Your task to perform on an android device: See recent photos Image 0: 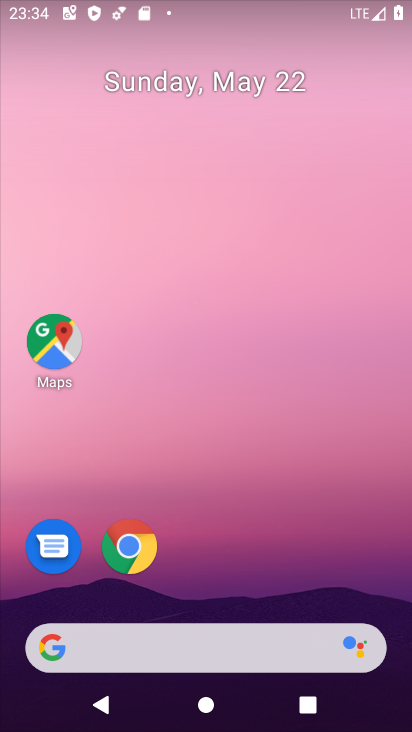
Step 0: drag from (164, 576) to (245, 171)
Your task to perform on an android device: See recent photos Image 1: 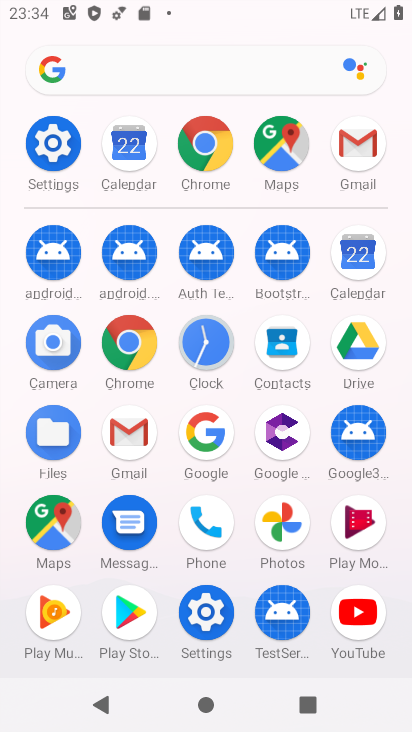
Step 1: click (276, 526)
Your task to perform on an android device: See recent photos Image 2: 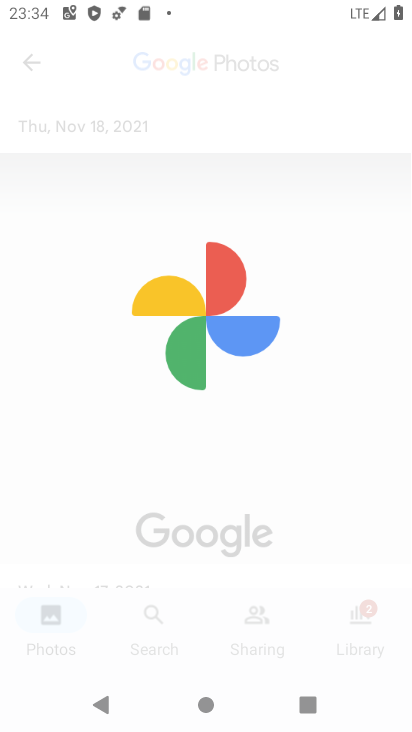
Step 2: drag from (209, 578) to (214, 292)
Your task to perform on an android device: See recent photos Image 3: 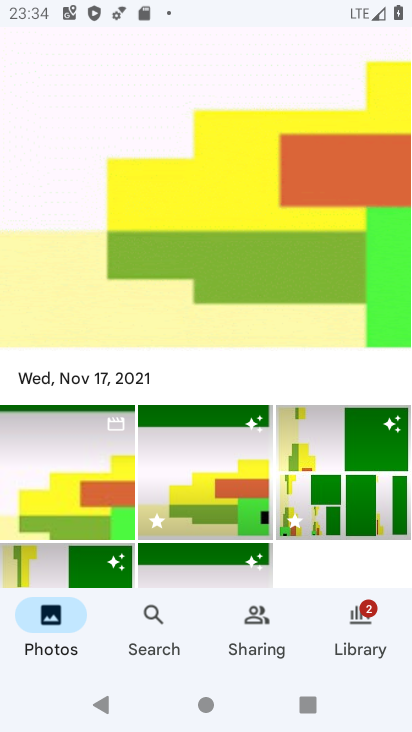
Step 3: drag from (211, 550) to (237, 289)
Your task to perform on an android device: See recent photos Image 4: 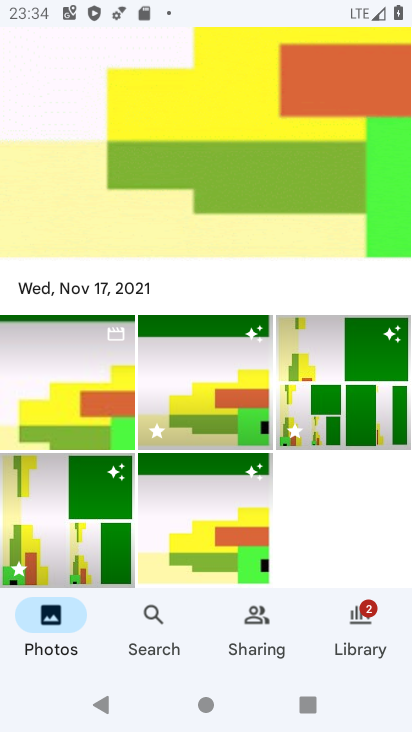
Step 4: drag from (163, 535) to (261, 145)
Your task to perform on an android device: See recent photos Image 5: 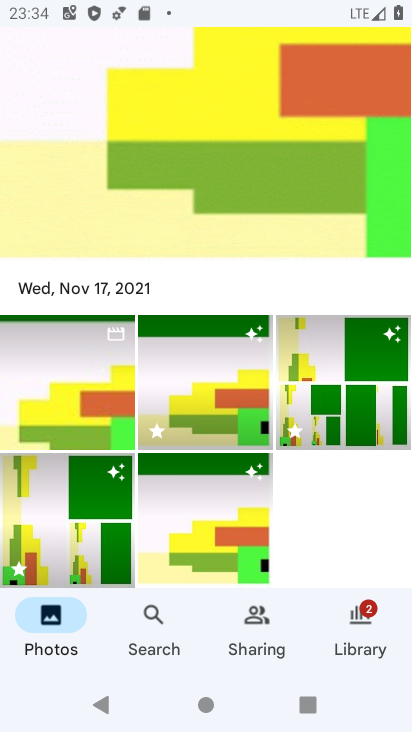
Step 5: drag from (286, 530) to (295, 215)
Your task to perform on an android device: See recent photos Image 6: 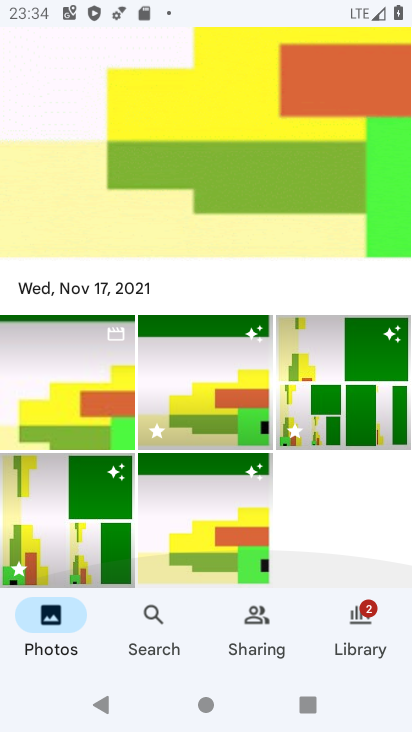
Step 6: drag from (289, 180) to (276, 614)
Your task to perform on an android device: See recent photos Image 7: 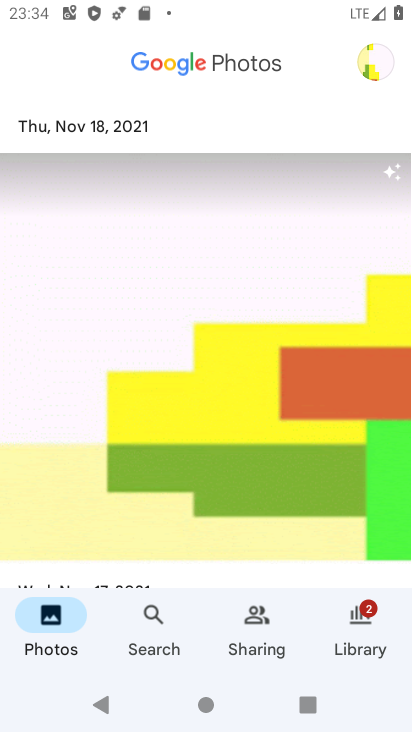
Step 7: click (245, 627)
Your task to perform on an android device: See recent photos Image 8: 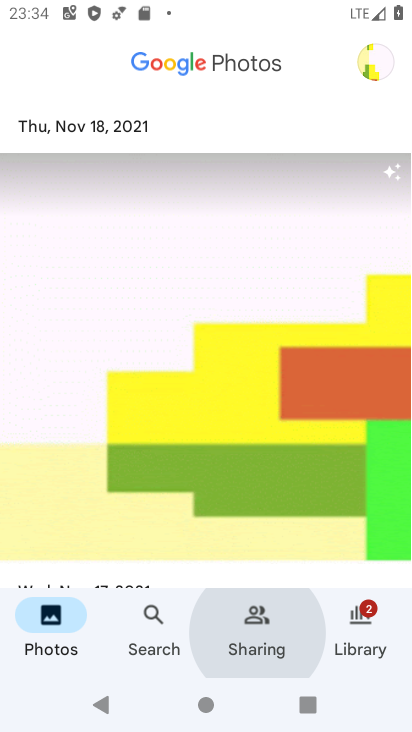
Step 8: click (395, 618)
Your task to perform on an android device: See recent photos Image 9: 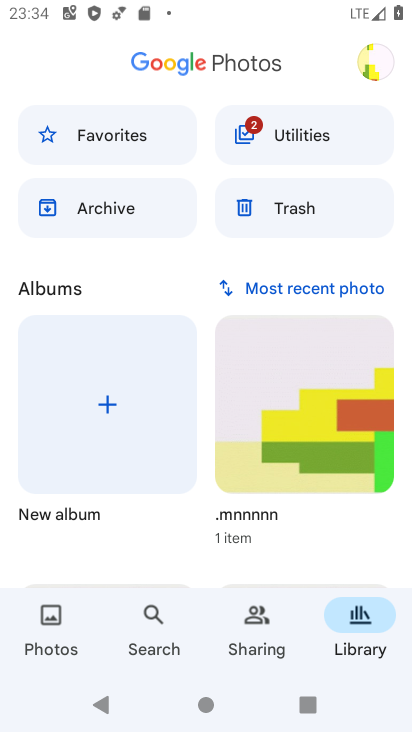
Step 9: drag from (226, 627) to (227, 279)
Your task to perform on an android device: See recent photos Image 10: 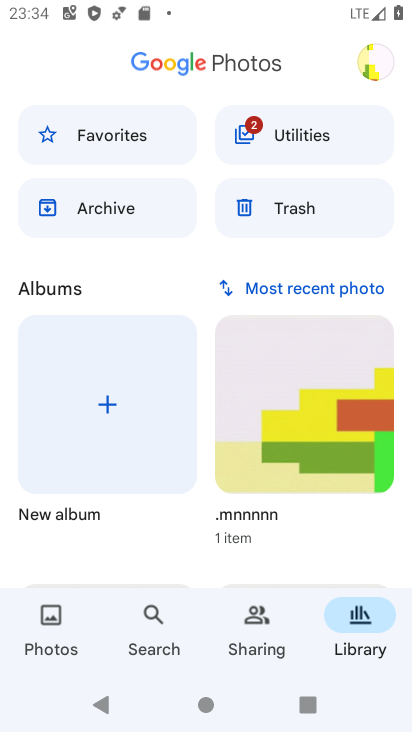
Step 10: click (150, 603)
Your task to perform on an android device: See recent photos Image 11: 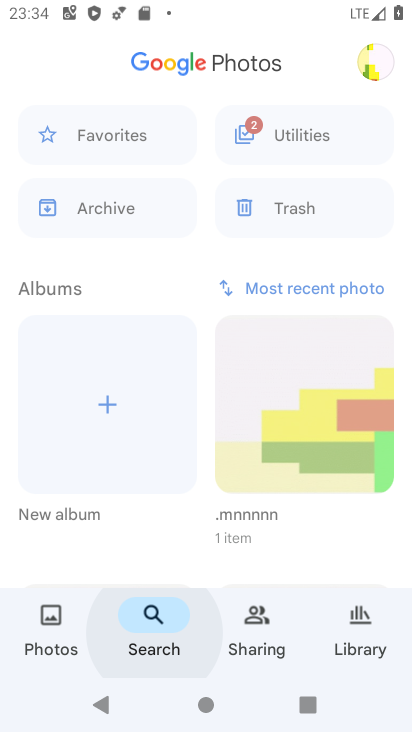
Step 11: click (44, 635)
Your task to perform on an android device: See recent photos Image 12: 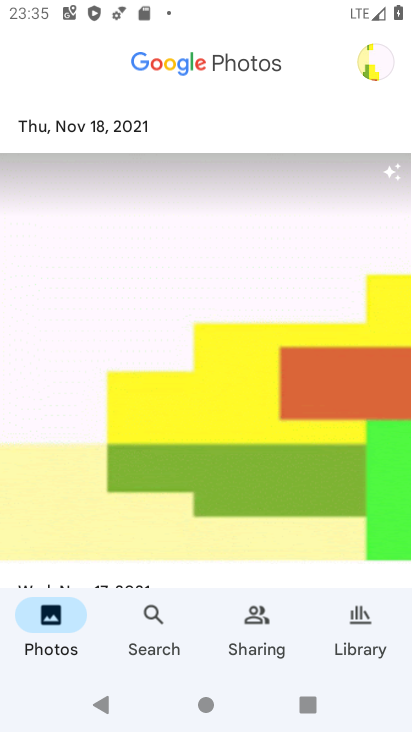
Step 12: drag from (286, 518) to (344, 132)
Your task to perform on an android device: See recent photos Image 13: 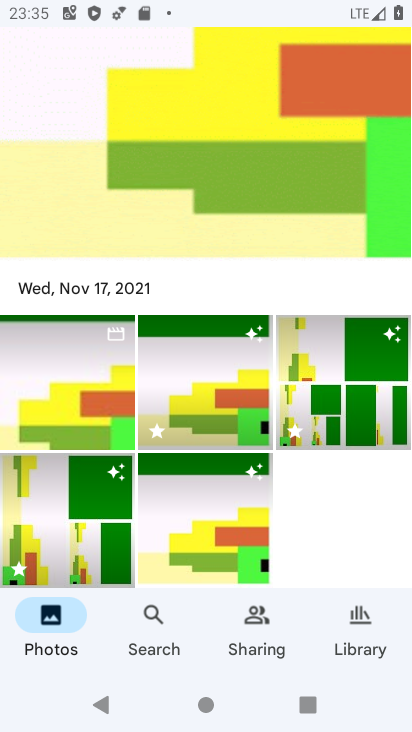
Step 13: click (54, 349)
Your task to perform on an android device: See recent photos Image 14: 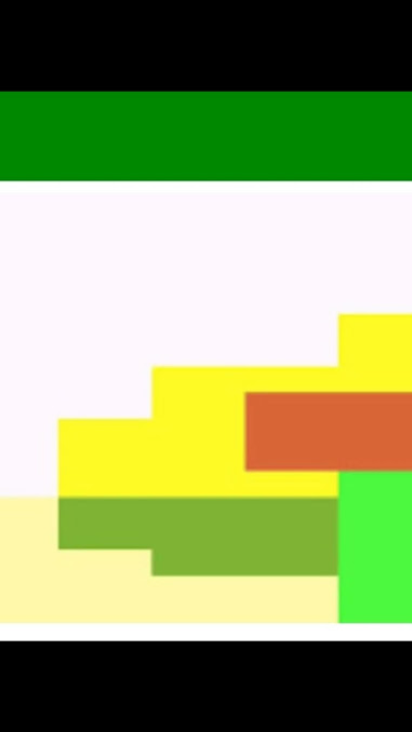
Step 14: drag from (325, 460) to (8, 255)
Your task to perform on an android device: See recent photos Image 15: 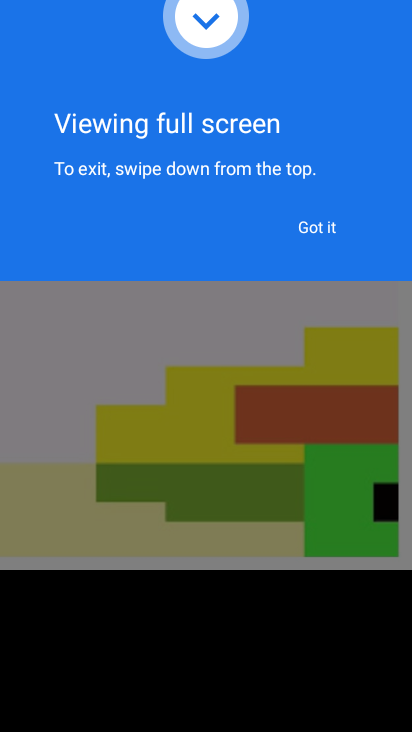
Step 15: click (333, 242)
Your task to perform on an android device: See recent photos Image 16: 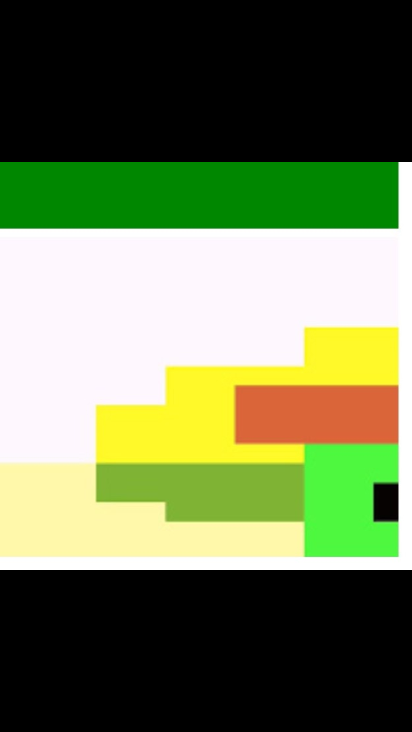
Step 16: drag from (291, 536) to (188, 178)
Your task to perform on an android device: See recent photos Image 17: 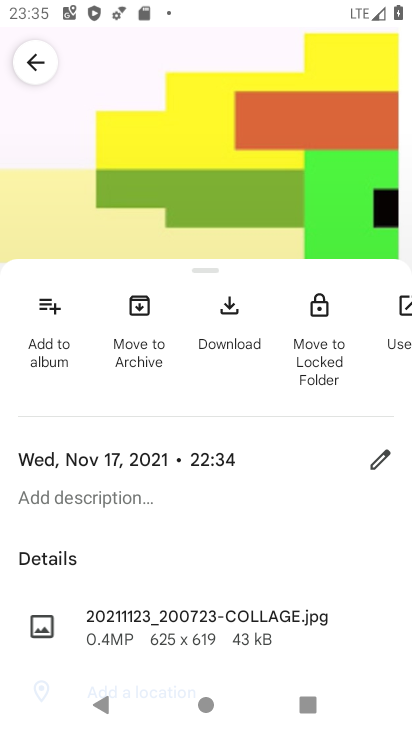
Step 17: press back button
Your task to perform on an android device: See recent photos Image 18: 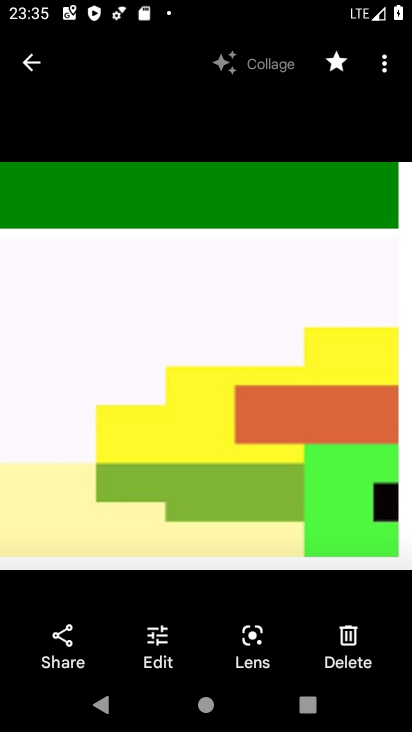
Step 18: drag from (210, 604) to (241, 330)
Your task to perform on an android device: See recent photos Image 19: 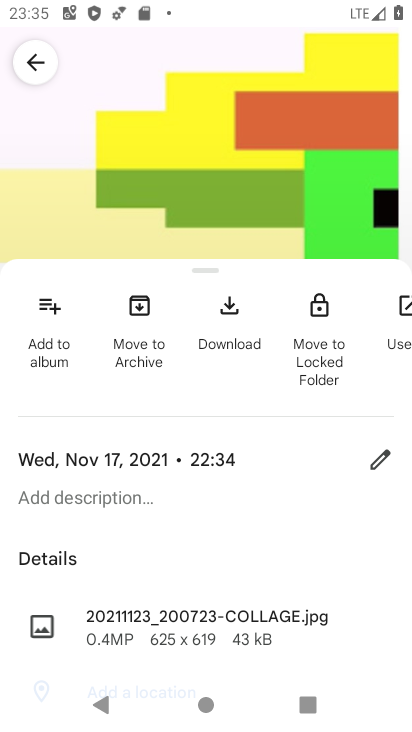
Step 19: drag from (137, 267) to (247, 659)
Your task to perform on an android device: See recent photos Image 20: 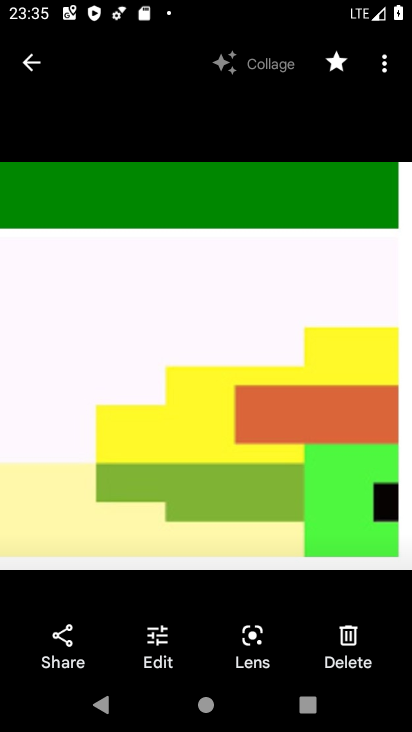
Step 20: click (15, 77)
Your task to perform on an android device: See recent photos Image 21: 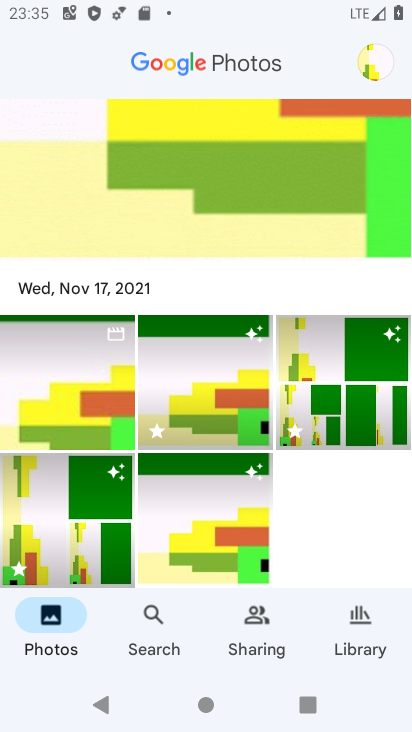
Step 21: drag from (194, 513) to (225, 257)
Your task to perform on an android device: See recent photos Image 22: 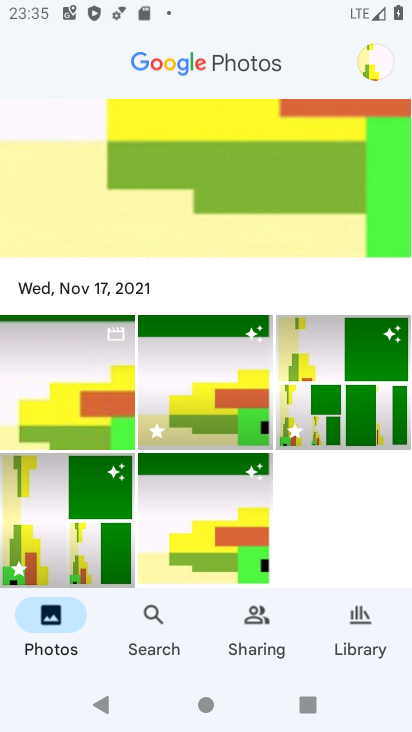
Step 22: click (206, 394)
Your task to perform on an android device: See recent photos Image 23: 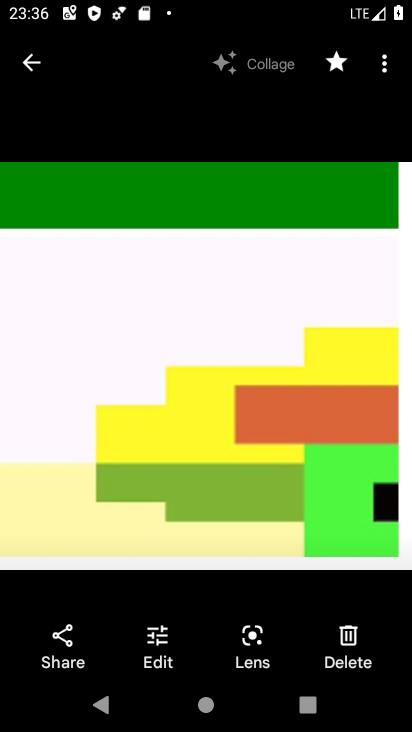
Step 23: task complete